Your task to perform on an android device: change text size in settings app Image 0: 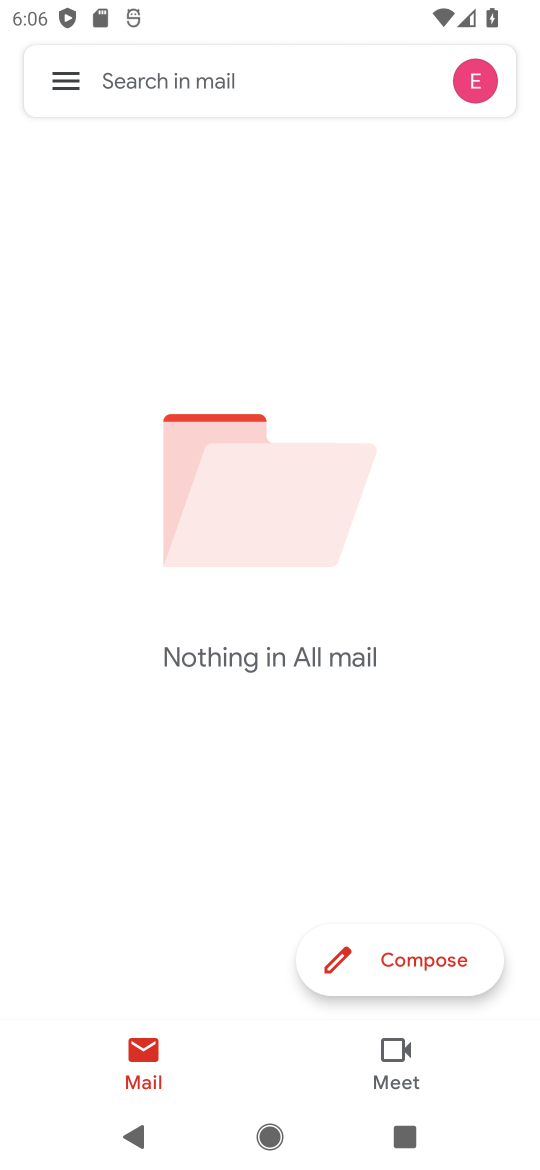
Step 0: press home button
Your task to perform on an android device: change text size in settings app Image 1: 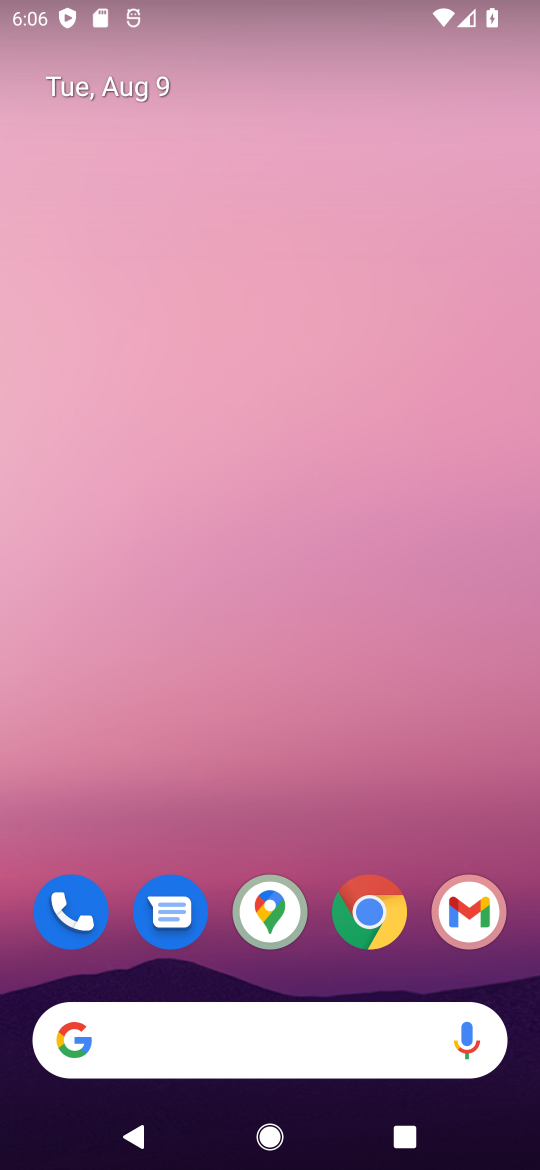
Step 1: drag from (254, 780) to (316, 194)
Your task to perform on an android device: change text size in settings app Image 2: 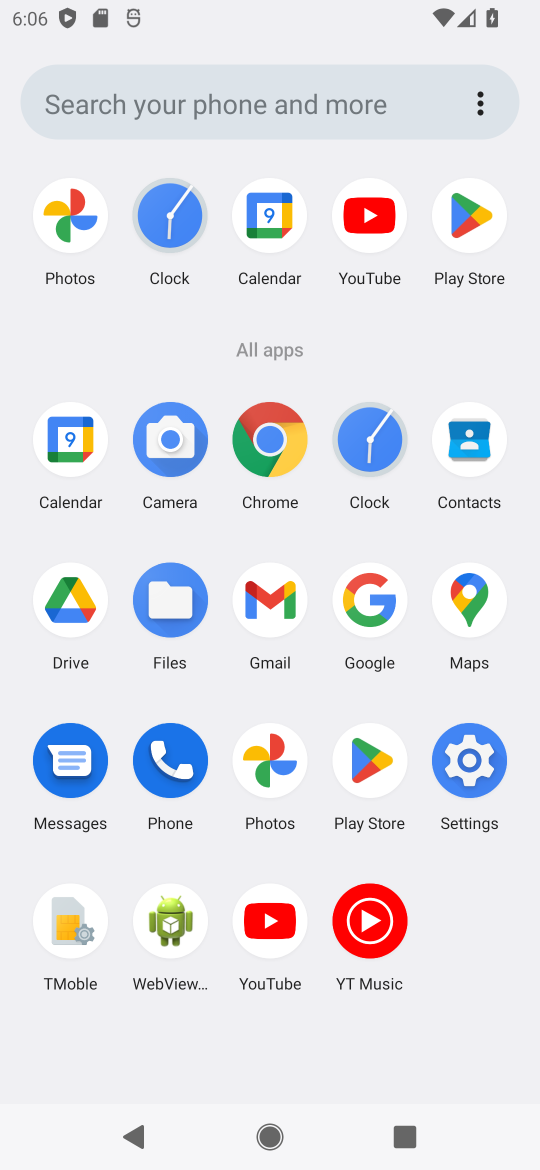
Step 2: click (467, 746)
Your task to perform on an android device: change text size in settings app Image 3: 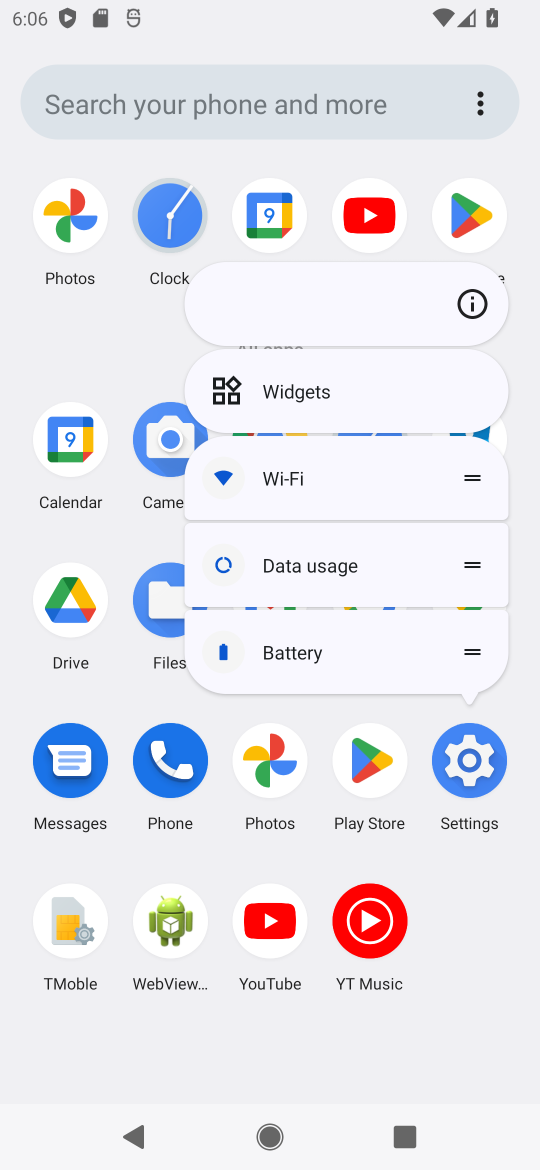
Step 3: click (476, 768)
Your task to perform on an android device: change text size in settings app Image 4: 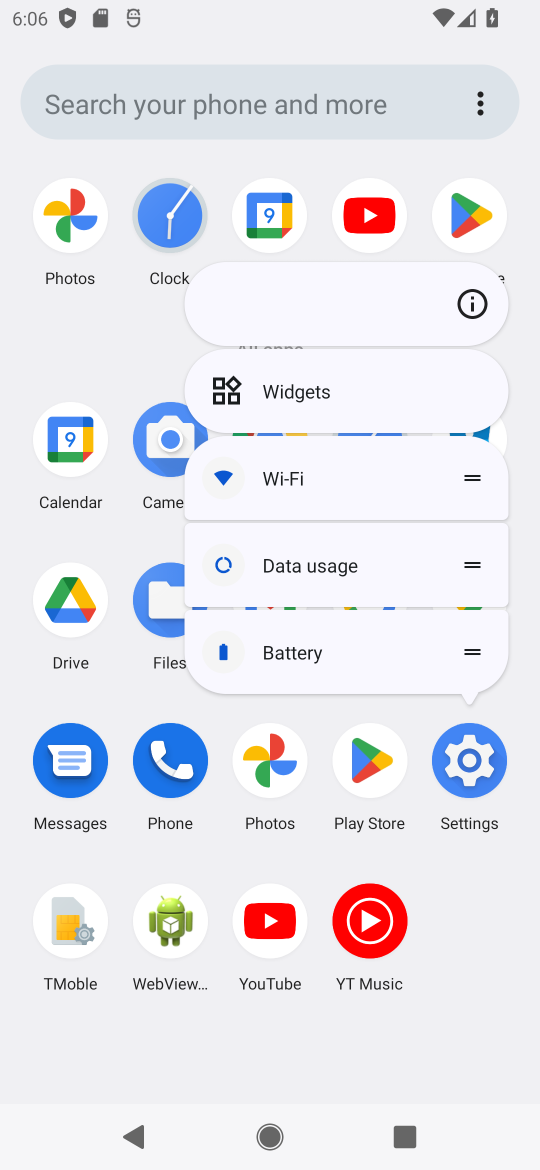
Step 4: click (492, 792)
Your task to perform on an android device: change text size in settings app Image 5: 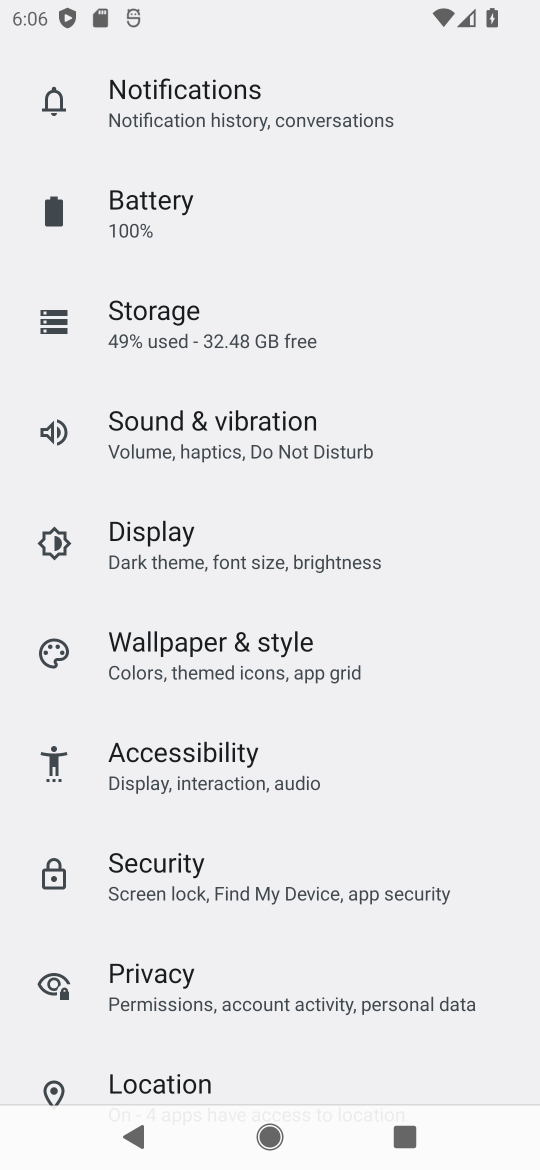
Step 5: click (487, 791)
Your task to perform on an android device: change text size in settings app Image 6: 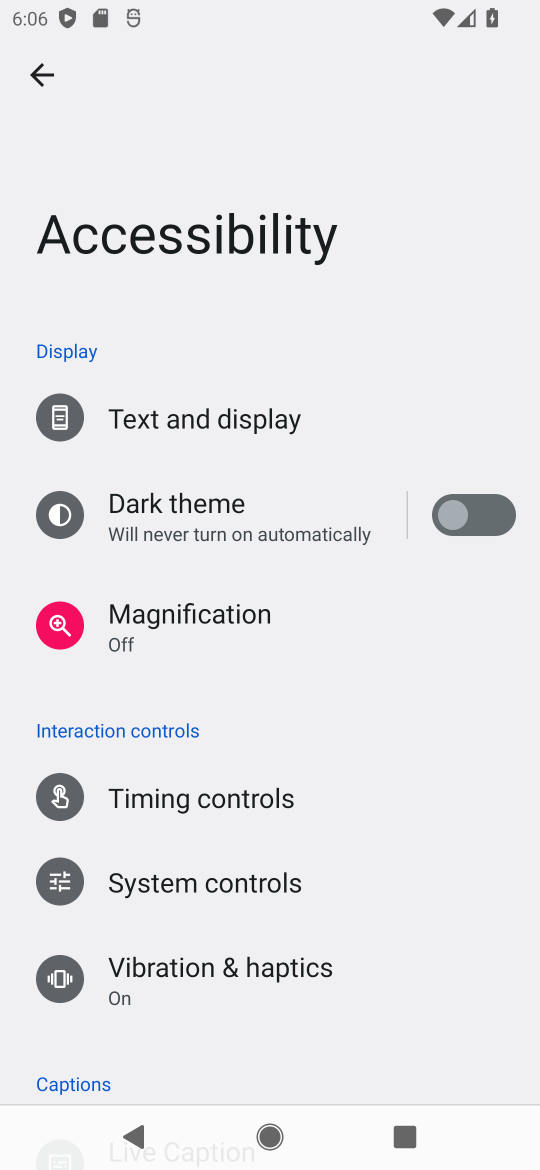
Step 6: press back button
Your task to perform on an android device: change text size in settings app Image 7: 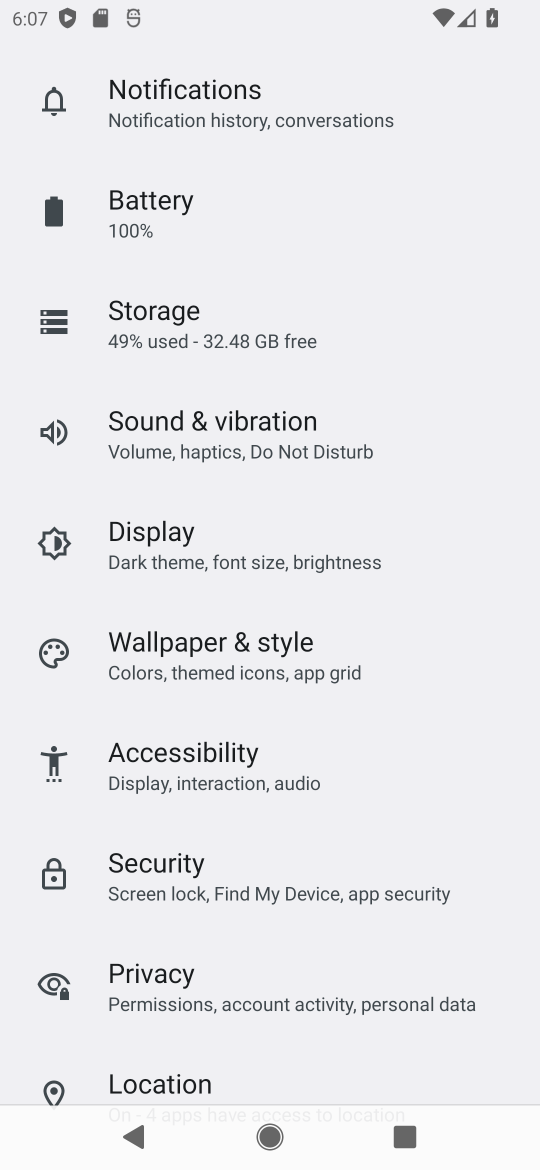
Step 7: click (198, 550)
Your task to perform on an android device: change text size in settings app Image 8: 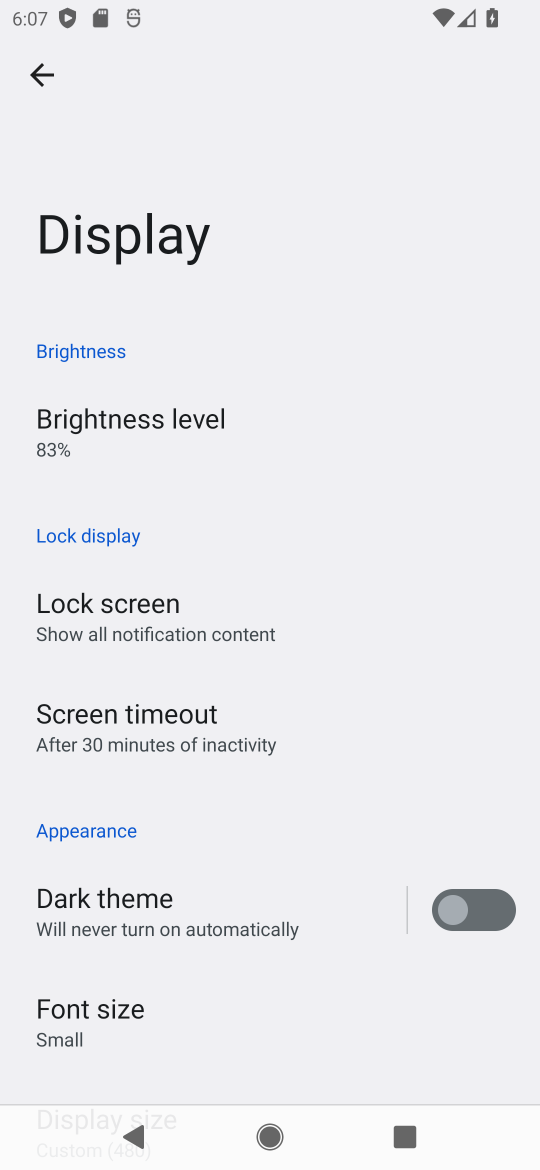
Step 8: click (148, 1028)
Your task to perform on an android device: change text size in settings app Image 9: 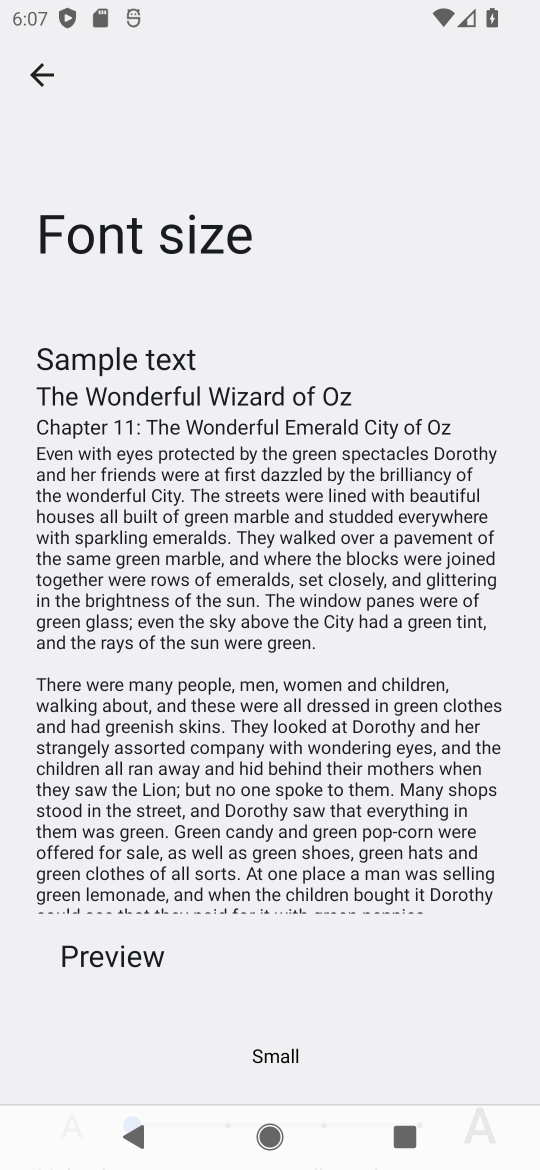
Step 9: drag from (257, 863) to (242, 327)
Your task to perform on an android device: change text size in settings app Image 10: 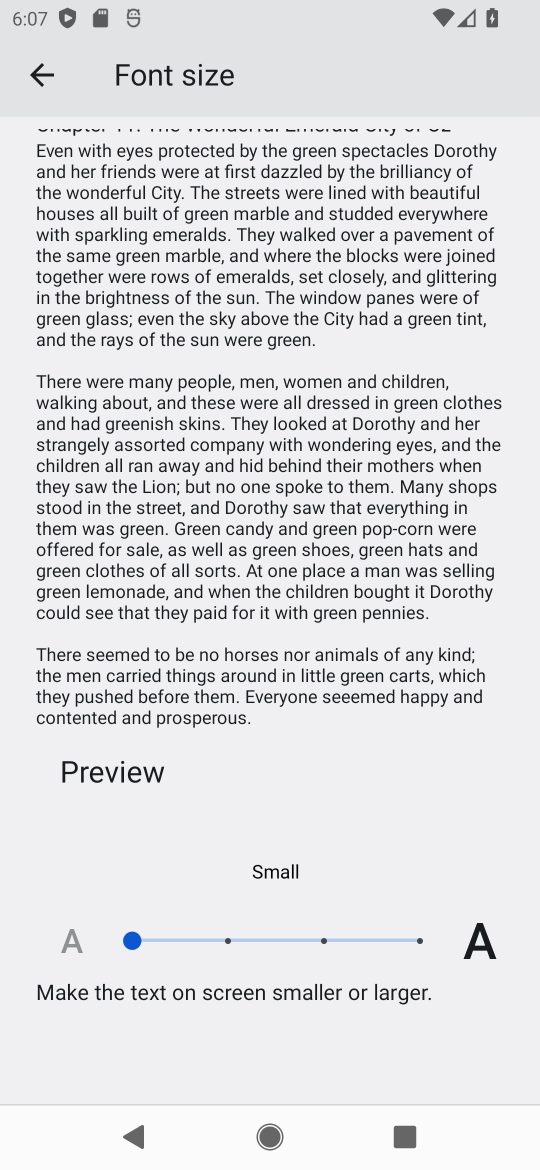
Step 10: click (323, 939)
Your task to perform on an android device: change text size in settings app Image 11: 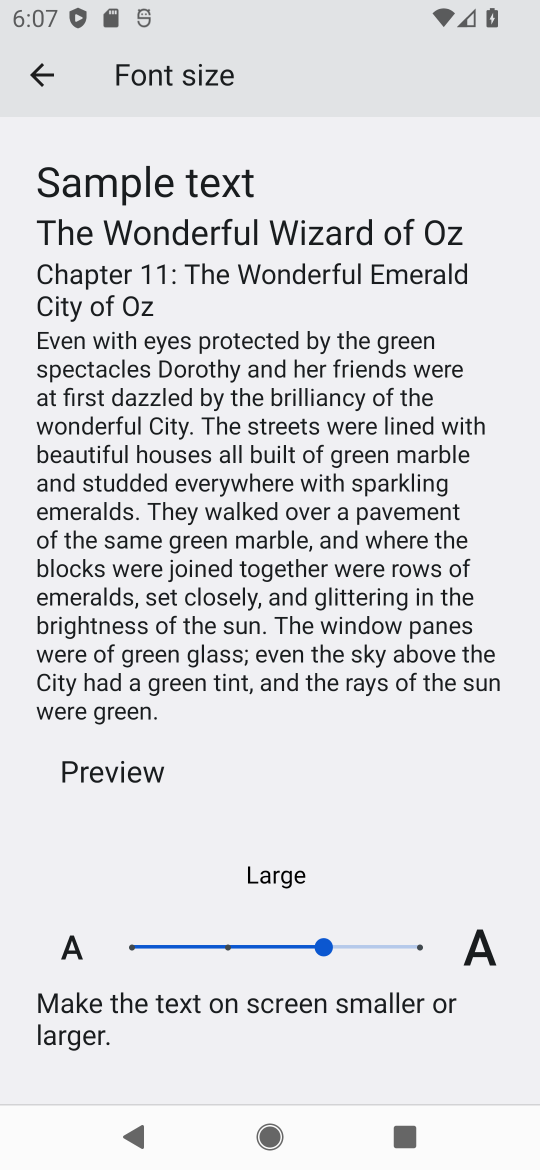
Step 11: task complete